Your task to perform on an android device: Open Youtube and go to "Your channel" Image 0: 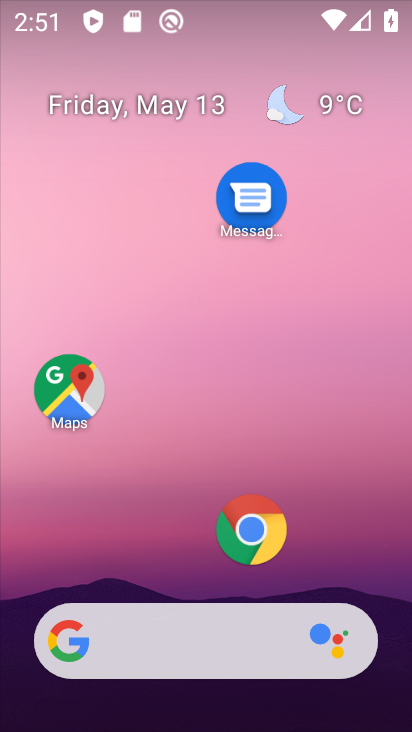
Step 0: drag from (91, 620) to (301, 103)
Your task to perform on an android device: Open Youtube and go to "Your channel" Image 1: 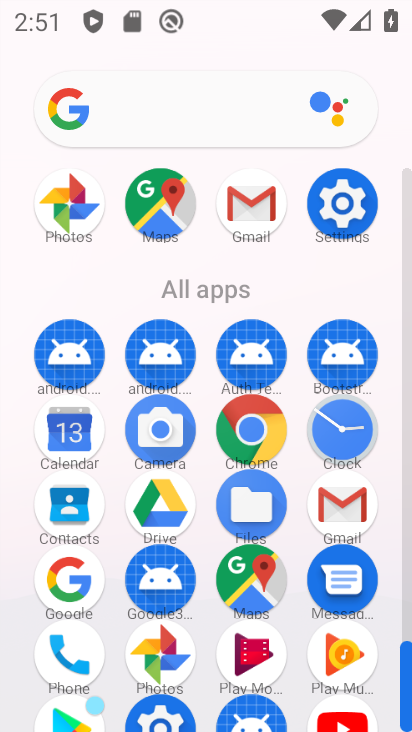
Step 1: drag from (206, 605) to (265, 398)
Your task to perform on an android device: Open Youtube and go to "Your channel" Image 2: 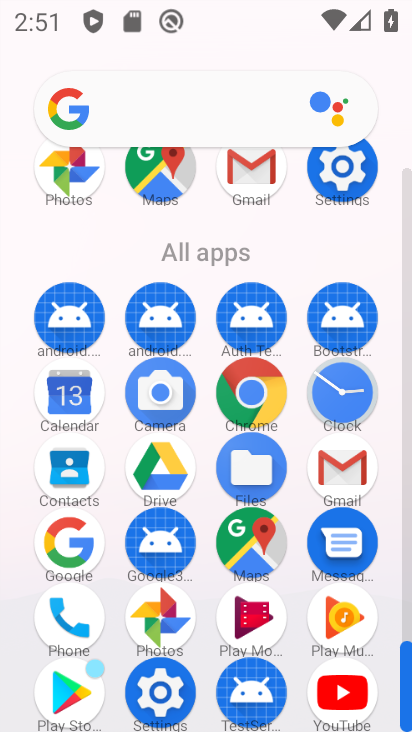
Step 2: click (347, 688)
Your task to perform on an android device: Open Youtube and go to "Your channel" Image 3: 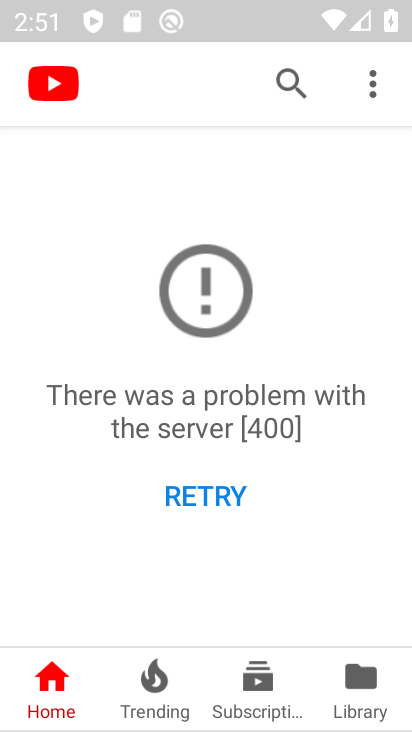
Step 3: click (366, 689)
Your task to perform on an android device: Open Youtube and go to "Your channel" Image 4: 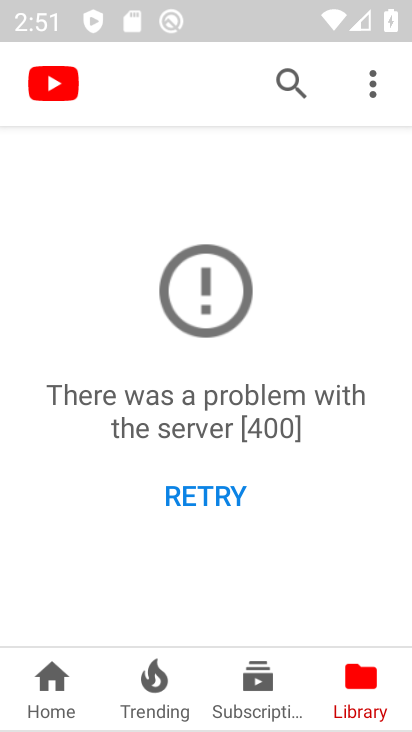
Step 4: task complete